Your task to perform on an android device: Go to Amazon Image 0: 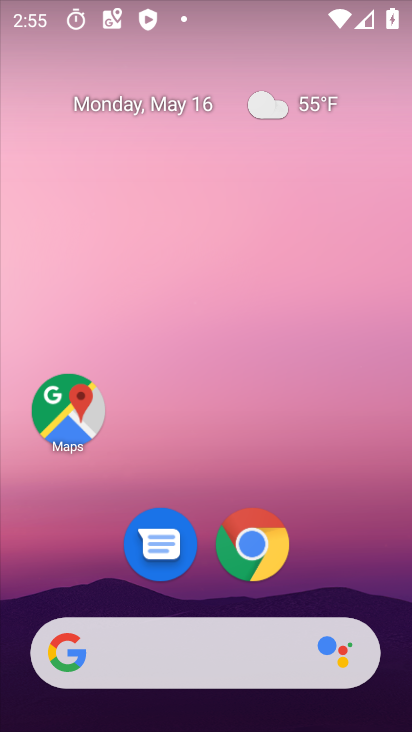
Step 0: drag from (345, 551) to (212, 0)
Your task to perform on an android device: Go to Amazon Image 1: 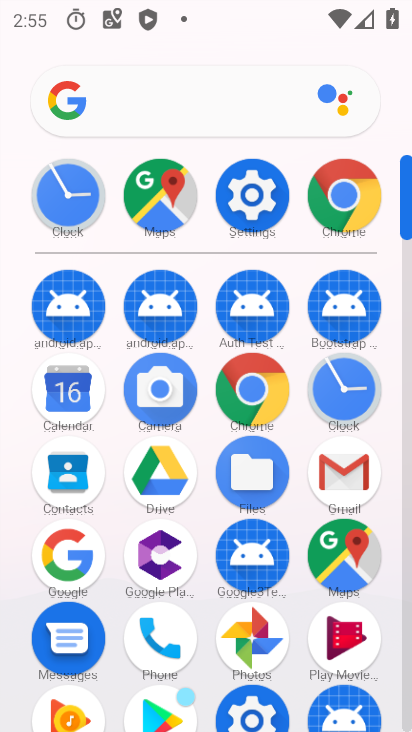
Step 1: click (339, 248)
Your task to perform on an android device: Go to Amazon Image 2: 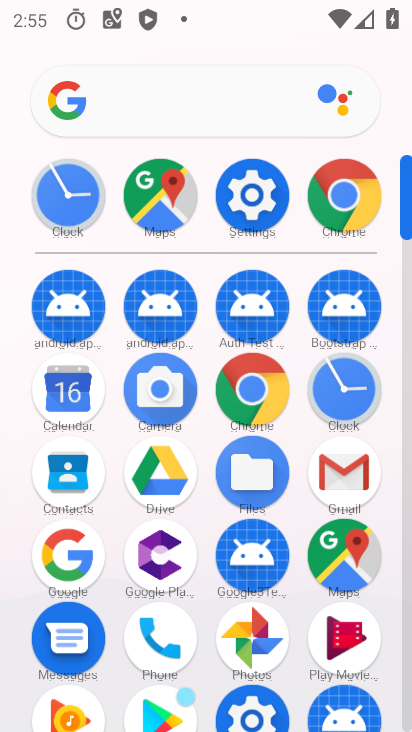
Step 2: click (363, 210)
Your task to perform on an android device: Go to Amazon Image 3: 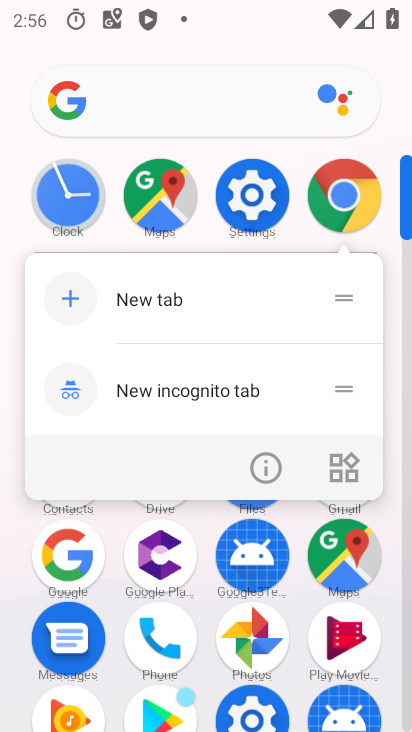
Step 3: click (363, 210)
Your task to perform on an android device: Go to Amazon Image 4: 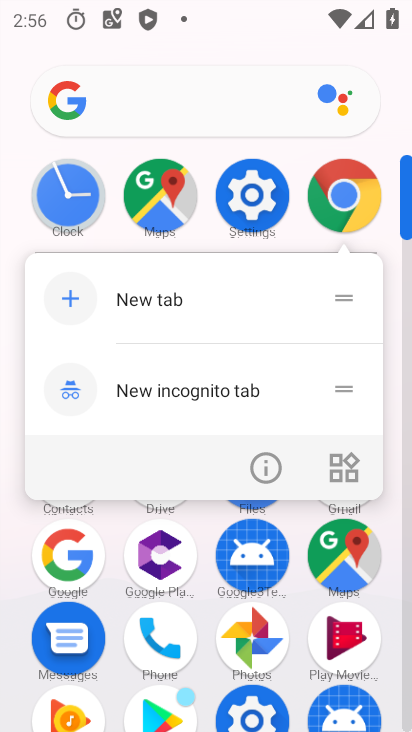
Step 4: click (363, 210)
Your task to perform on an android device: Go to Amazon Image 5: 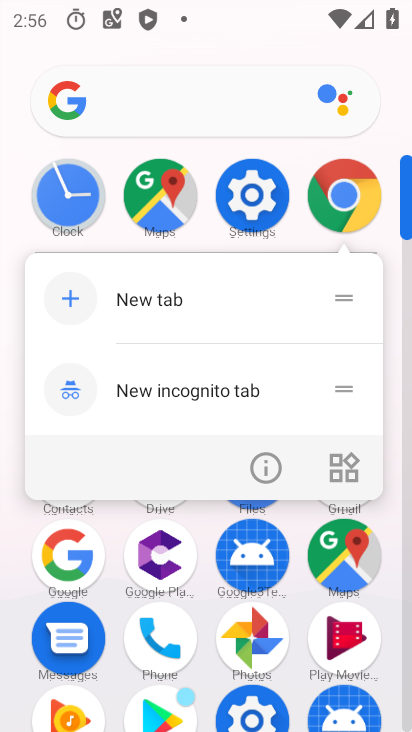
Step 5: click (363, 210)
Your task to perform on an android device: Go to Amazon Image 6: 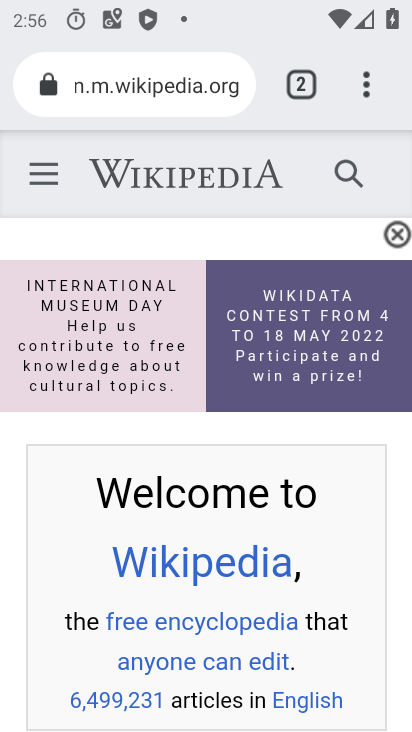
Step 6: click (199, 78)
Your task to perform on an android device: Go to Amazon Image 7: 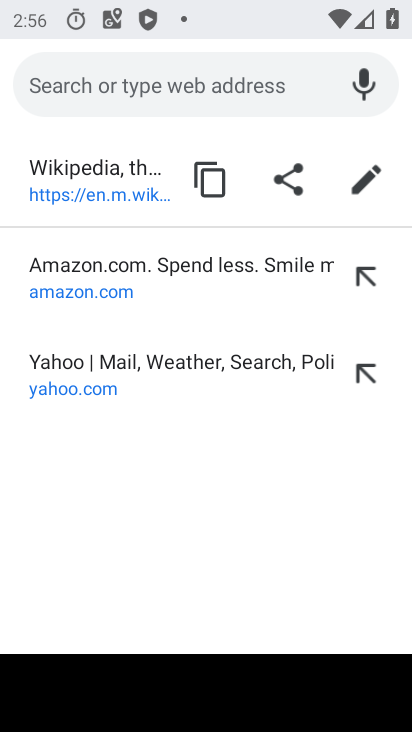
Step 7: click (142, 287)
Your task to perform on an android device: Go to Amazon Image 8: 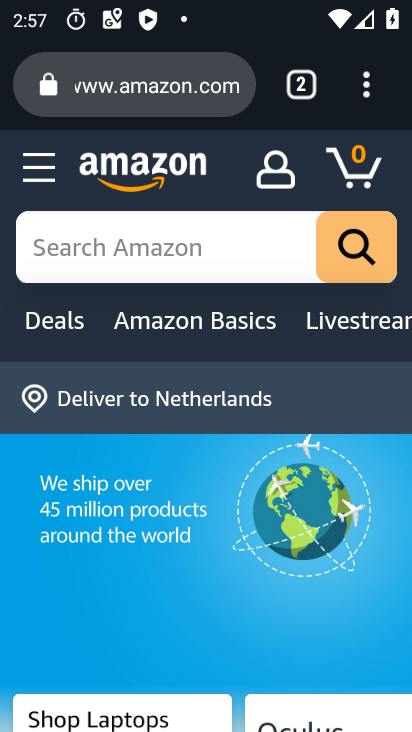
Step 8: task complete